Your task to perform on an android device: Go to sound settings Image 0: 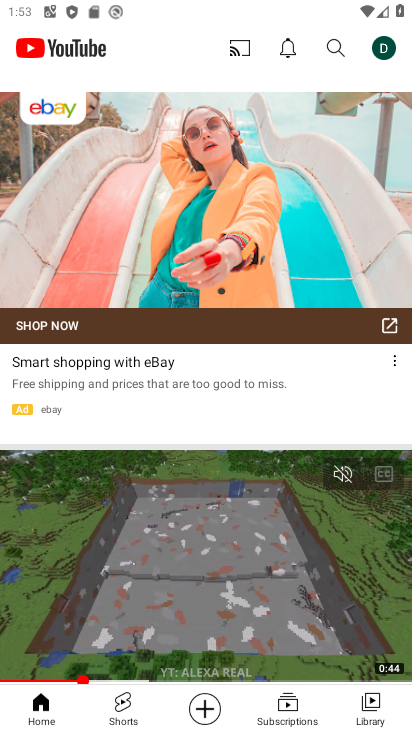
Step 0: press home button
Your task to perform on an android device: Go to sound settings Image 1: 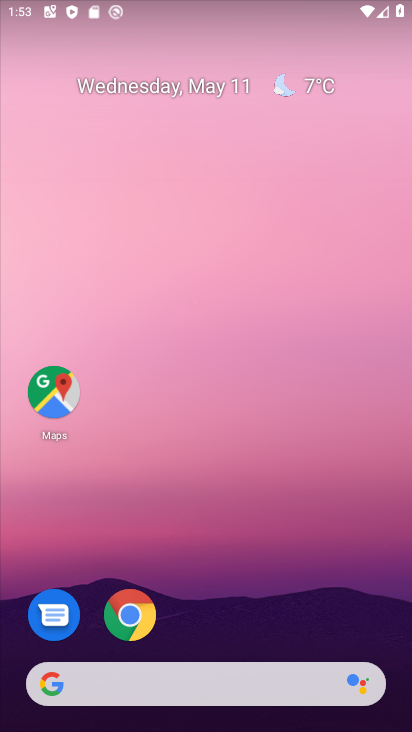
Step 1: drag from (274, 568) to (357, 53)
Your task to perform on an android device: Go to sound settings Image 2: 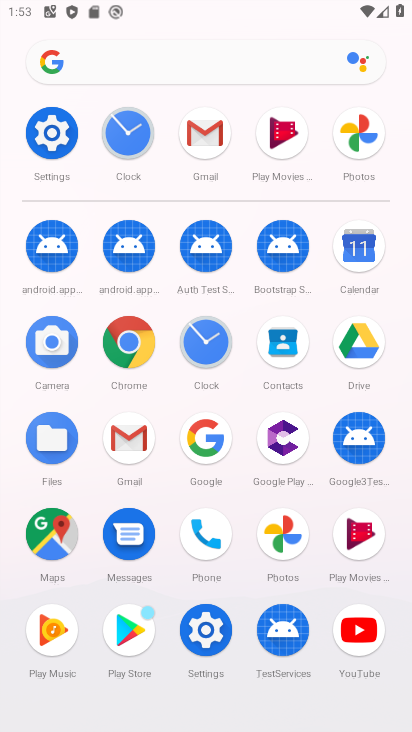
Step 2: click (209, 635)
Your task to perform on an android device: Go to sound settings Image 3: 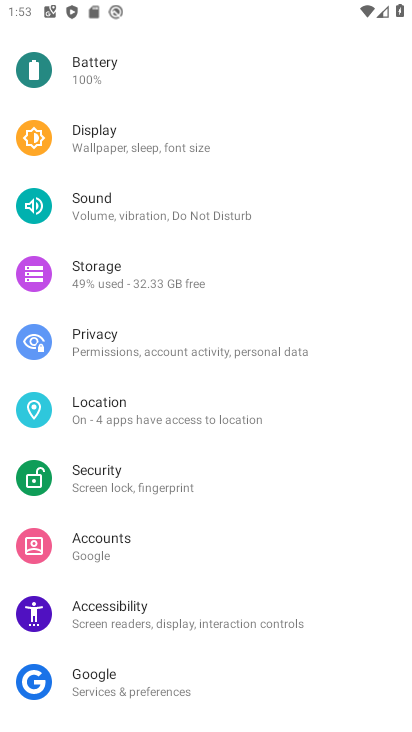
Step 3: click (139, 206)
Your task to perform on an android device: Go to sound settings Image 4: 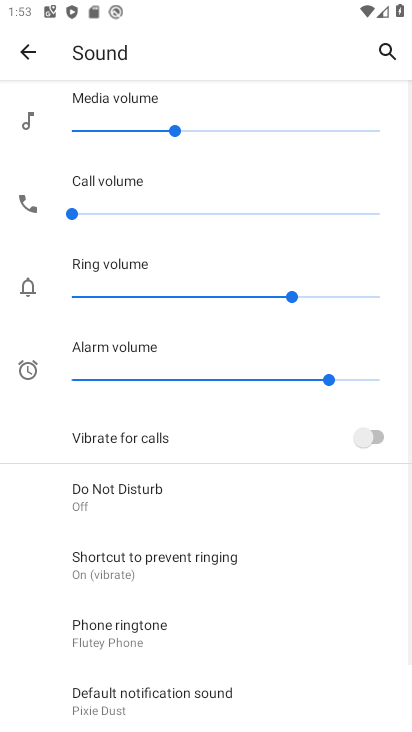
Step 4: task complete